Your task to perform on an android device: check storage Image 0: 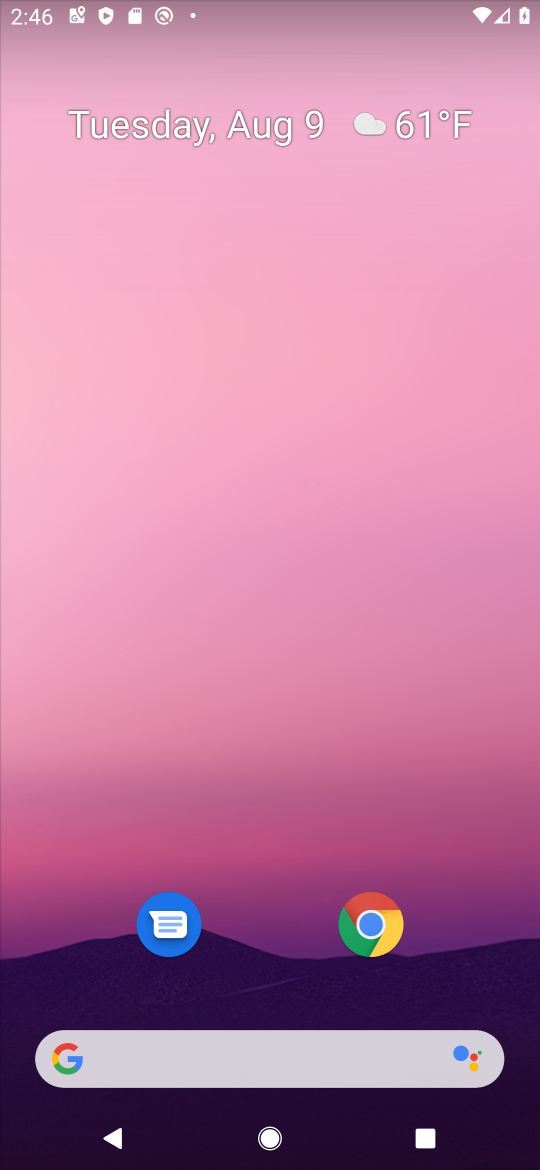
Step 0: drag from (311, 410) to (305, 39)
Your task to perform on an android device: check storage Image 1: 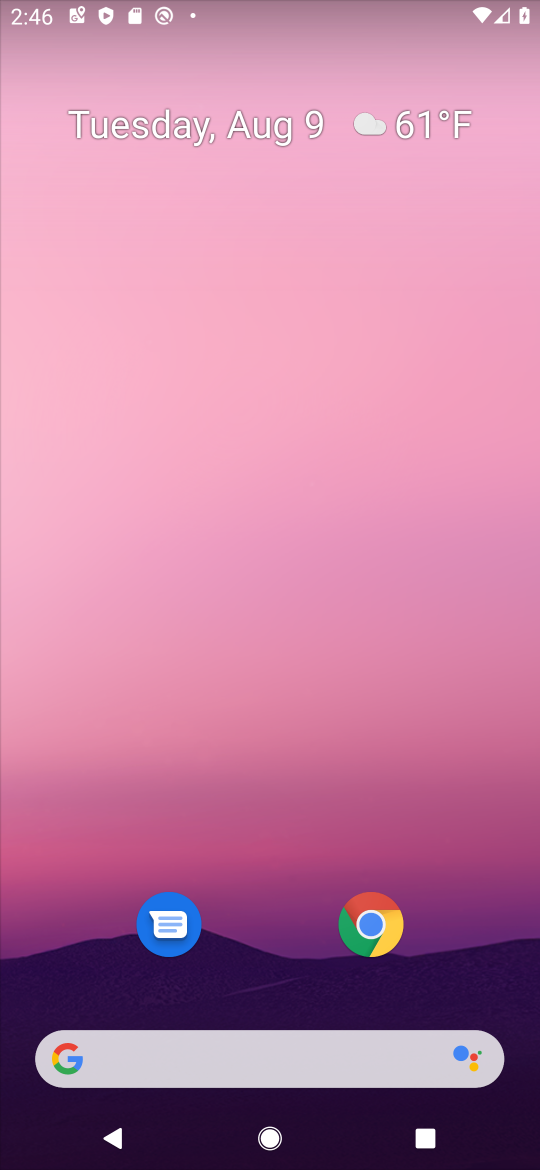
Step 1: drag from (292, 869) to (328, 0)
Your task to perform on an android device: check storage Image 2: 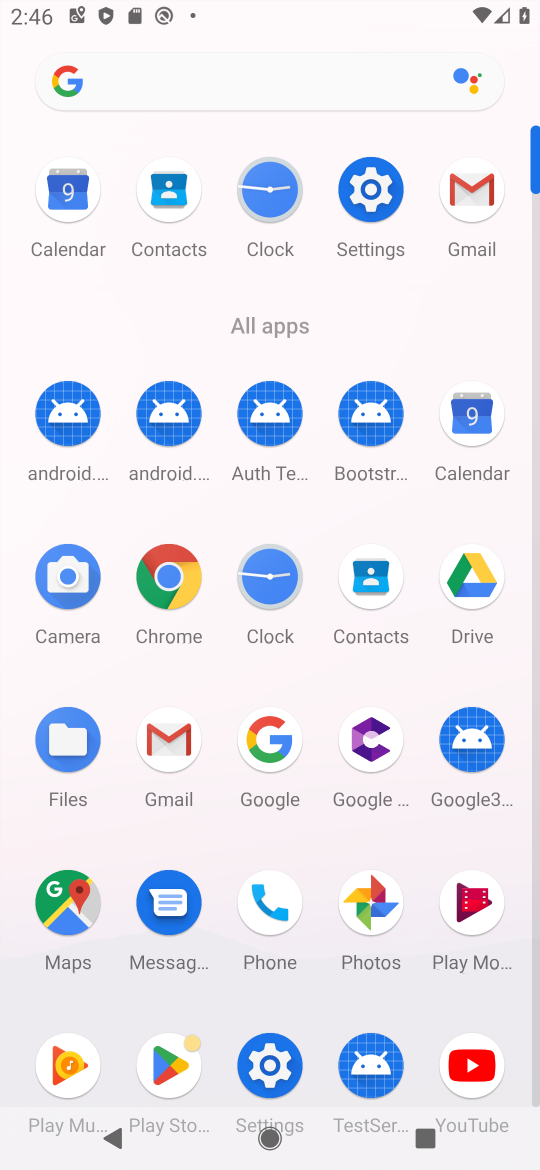
Step 2: click (372, 186)
Your task to perform on an android device: check storage Image 3: 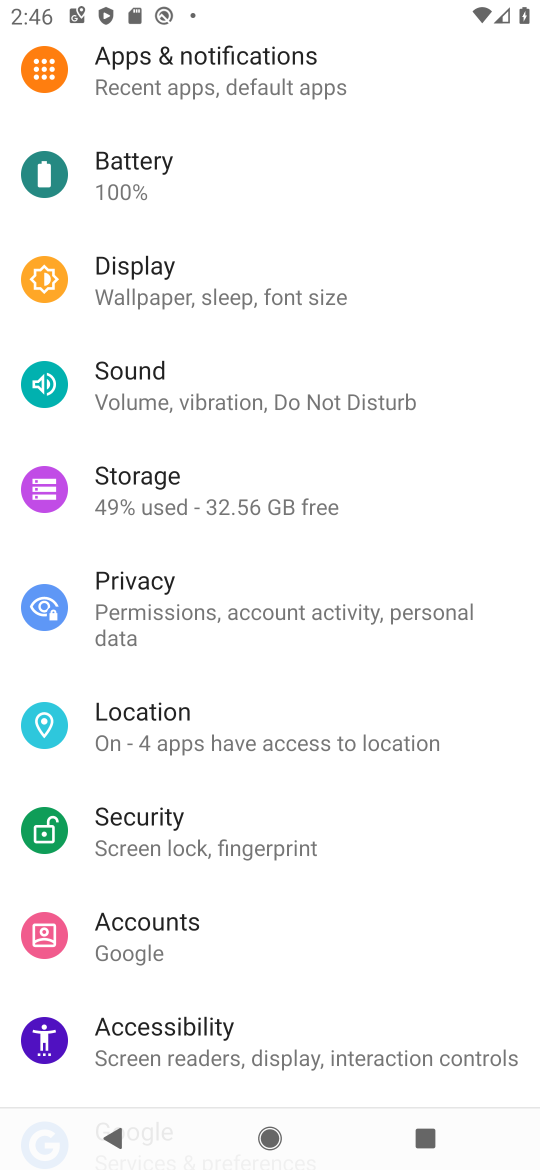
Step 3: click (270, 503)
Your task to perform on an android device: check storage Image 4: 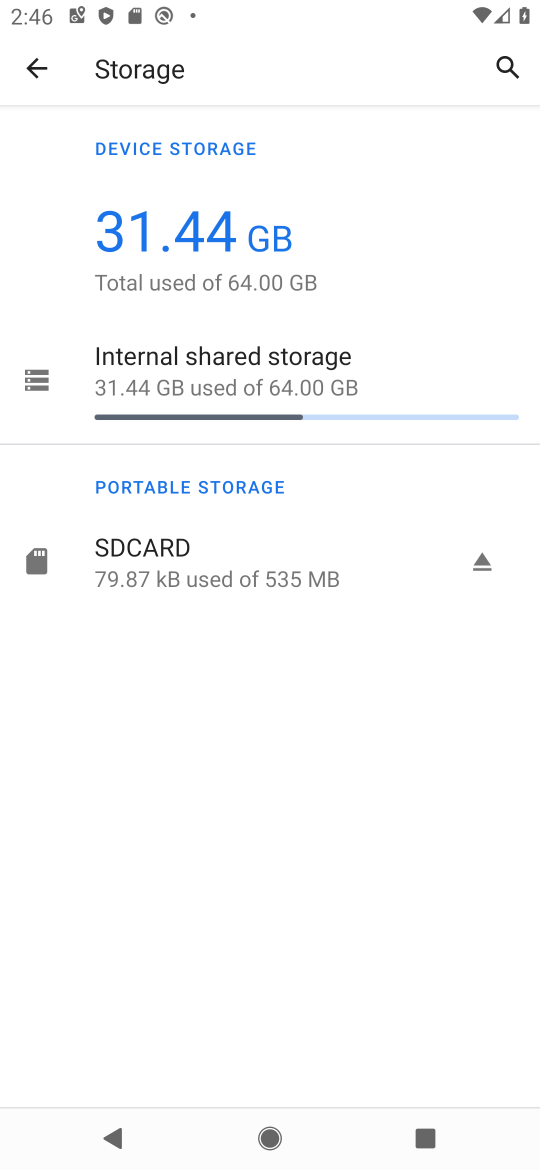
Step 4: task complete